Your task to perform on an android device: View the shopping cart on newegg.com. Search for "macbook air" on newegg.com, select the first entry, add it to the cart, then select checkout. Image 0: 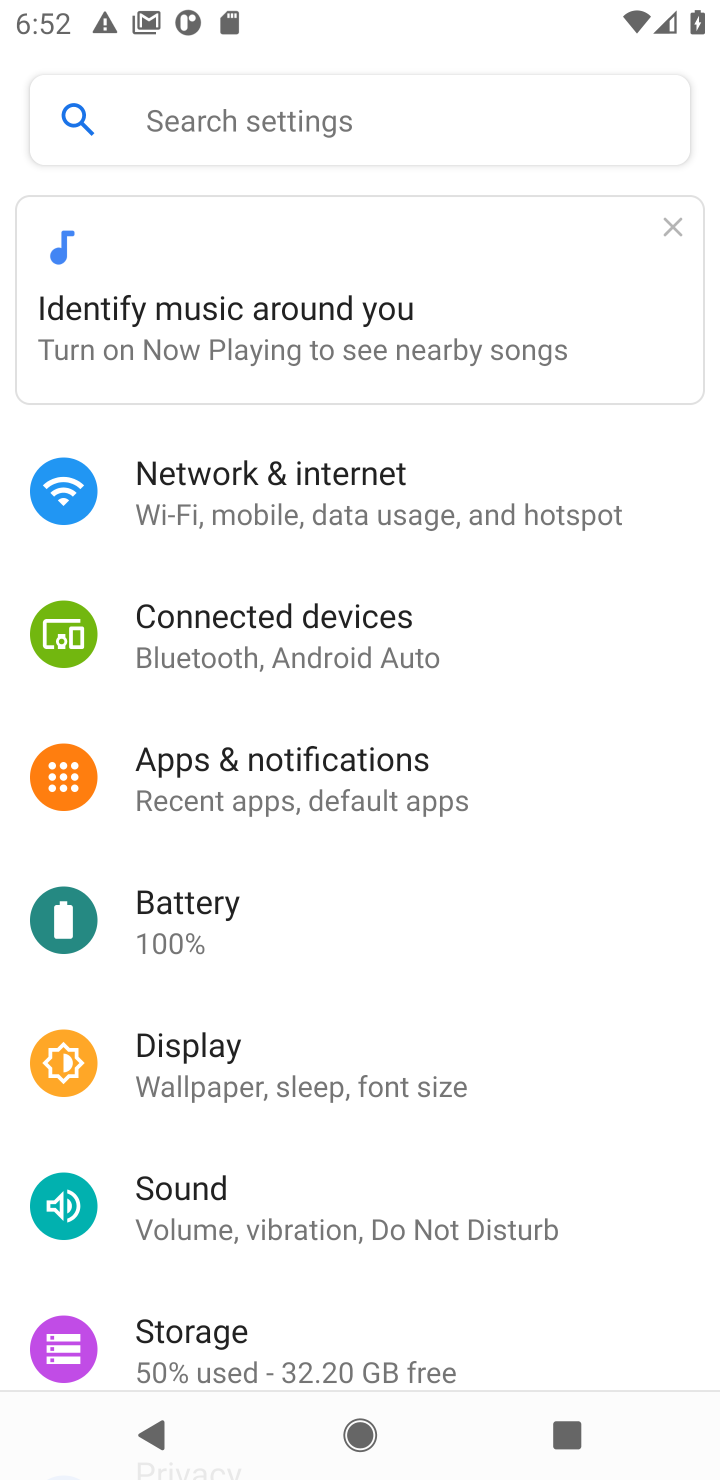
Step 0: press home button
Your task to perform on an android device: View the shopping cart on newegg.com. Search for "macbook air" on newegg.com, select the first entry, add it to the cart, then select checkout. Image 1: 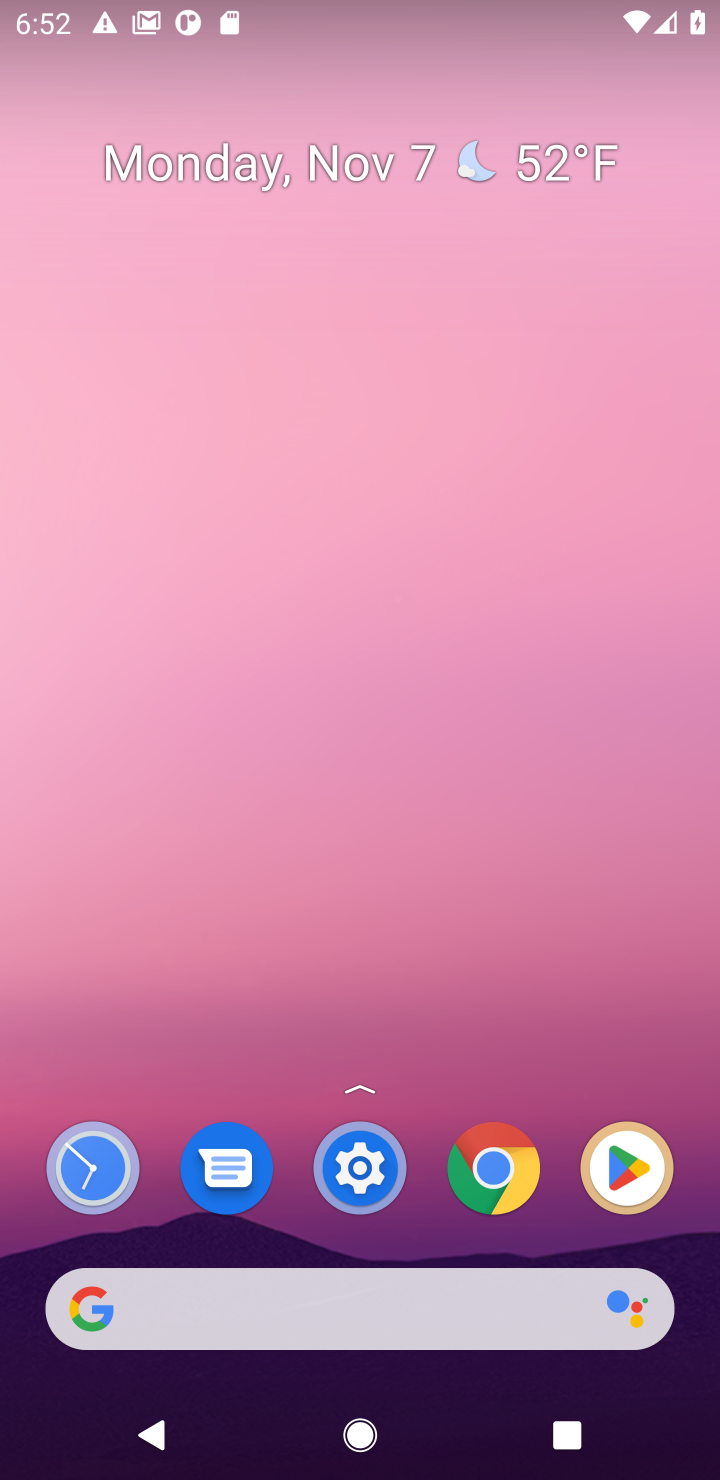
Step 1: click (322, 1305)
Your task to perform on an android device: View the shopping cart on newegg.com. Search for "macbook air" on newegg.com, select the first entry, add it to the cart, then select checkout. Image 2: 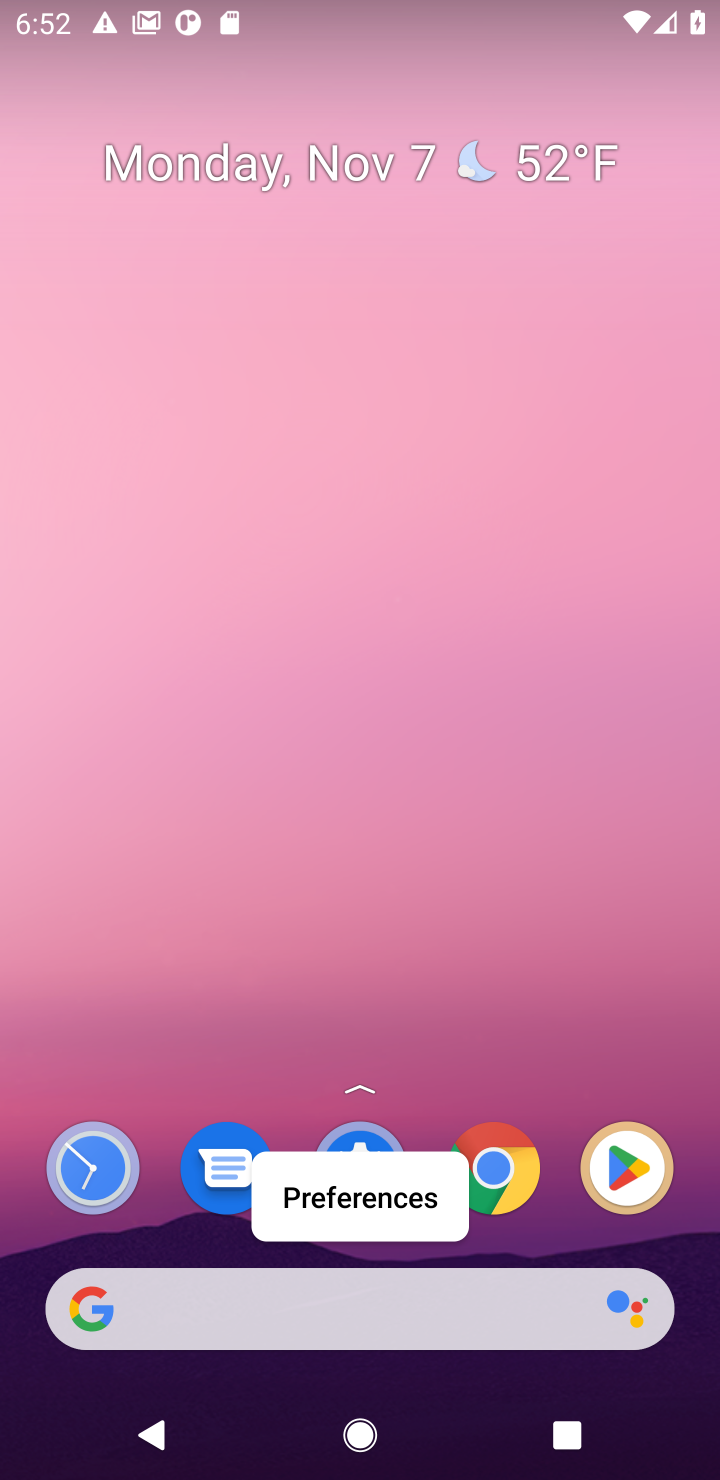
Step 2: click (322, 1305)
Your task to perform on an android device: View the shopping cart on newegg.com. Search for "macbook air" on newegg.com, select the first entry, add it to the cart, then select checkout. Image 3: 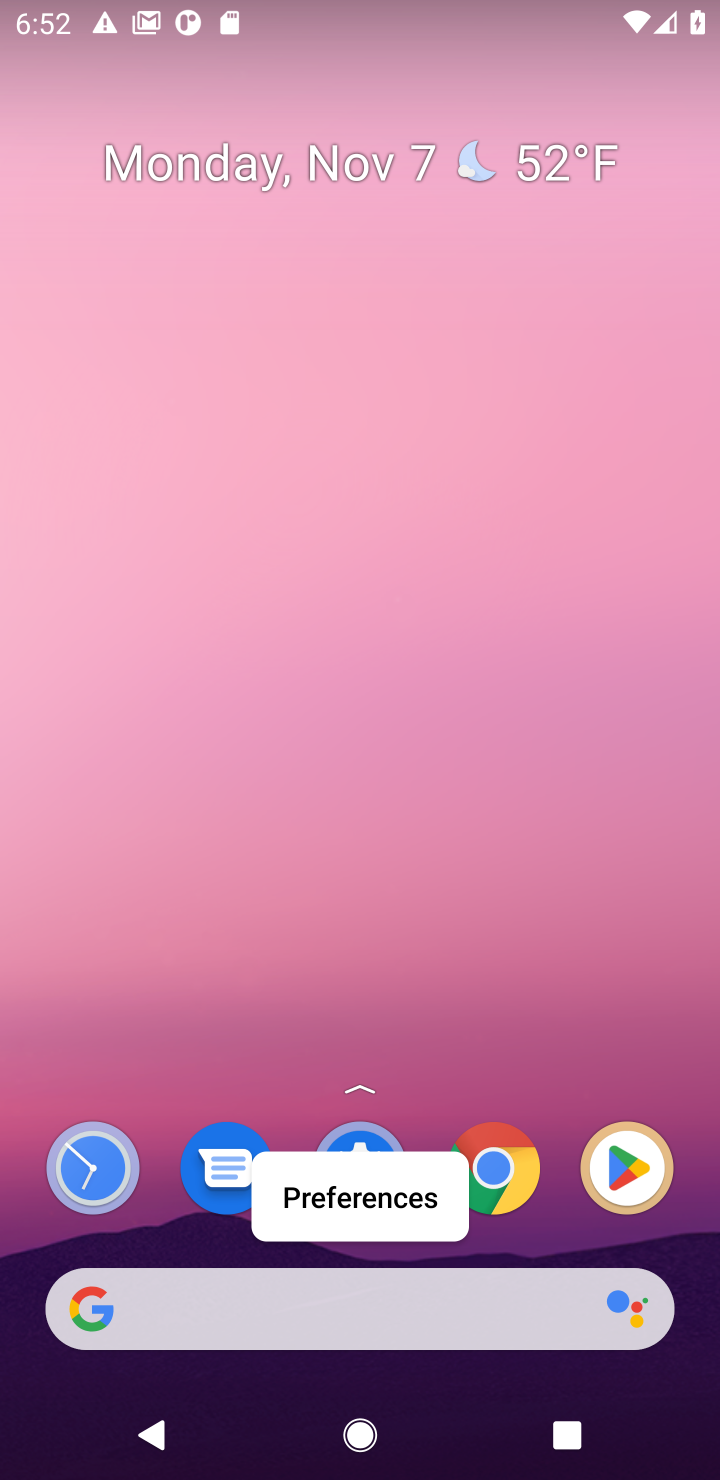
Step 3: task complete